Your task to perform on an android device: turn on showing notifications on the lock screen Image 0: 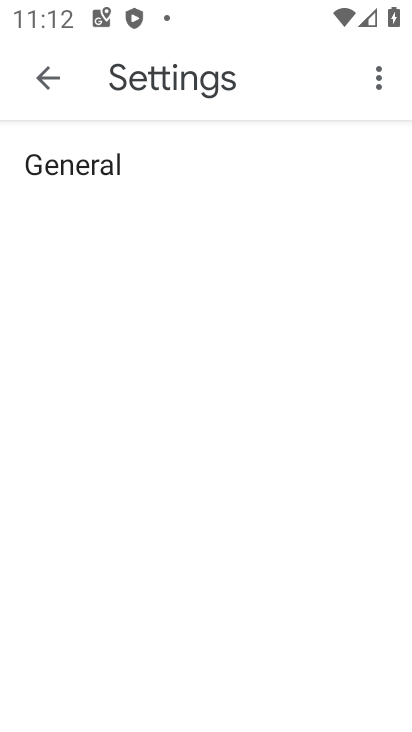
Step 0: press home button
Your task to perform on an android device: turn on showing notifications on the lock screen Image 1: 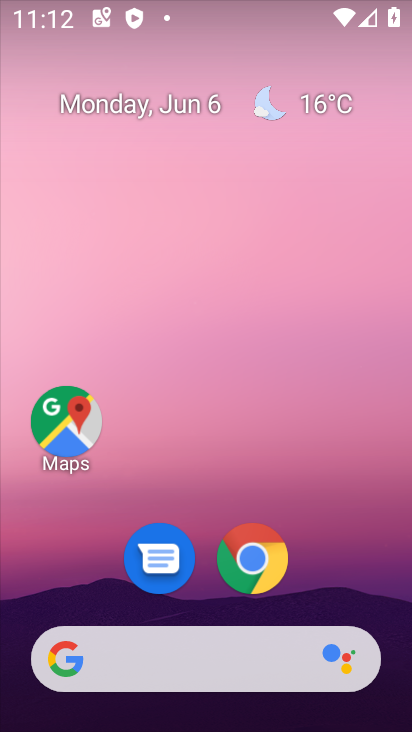
Step 1: drag from (347, 499) to (311, 25)
Your task to perform on an android device: turn on showing notifications on the lock screen Image 2: 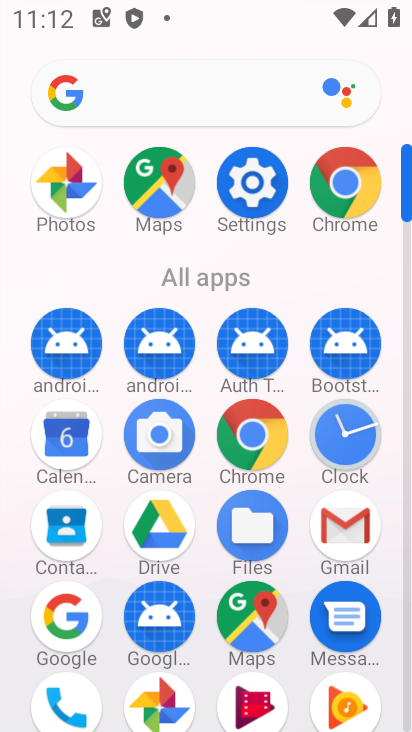
Step 2: click (258, 184)
Your task to perform on an android device: turn on showing notifications on the lock screen Image 3: 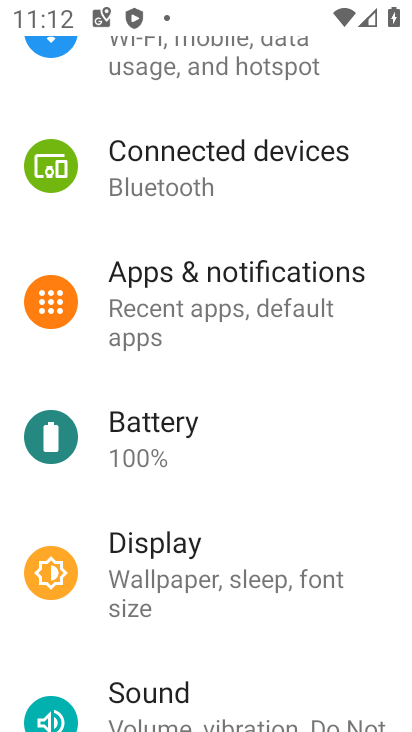
Step 3: click (113, 282)
Your task to perform on an android device: turn on showing notifications on the lock screen Image 4: 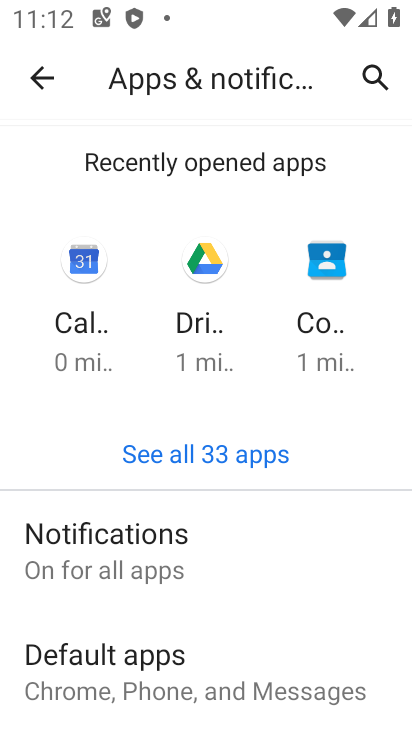
Step 4: click (260, 536)
Your task to perform on an android device: turn on showing notifications on the lock screen Image 5: 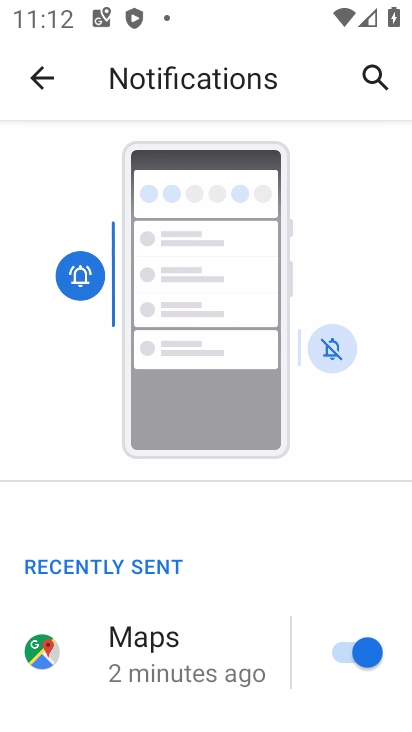
Step 5: drag from (221, 621) to (273, 128)
Your task to perform on an android device: turn on showing notifications on the lock screen Image 6: 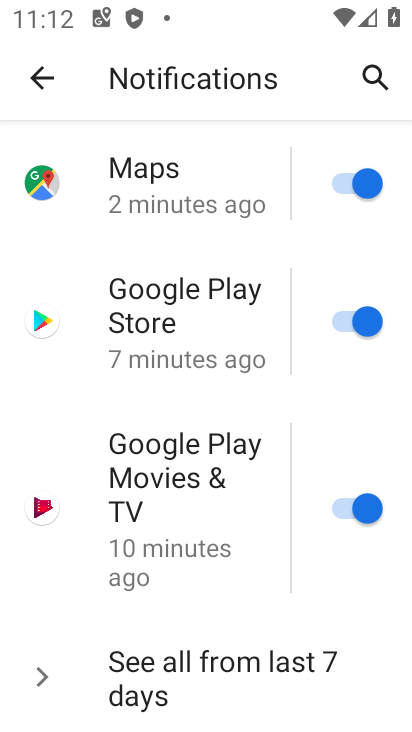
Step 6: drag from (147, 661) to (210, 232)
Your task to perform on an android device: turn on showing notifications on the lock screen Image 7: 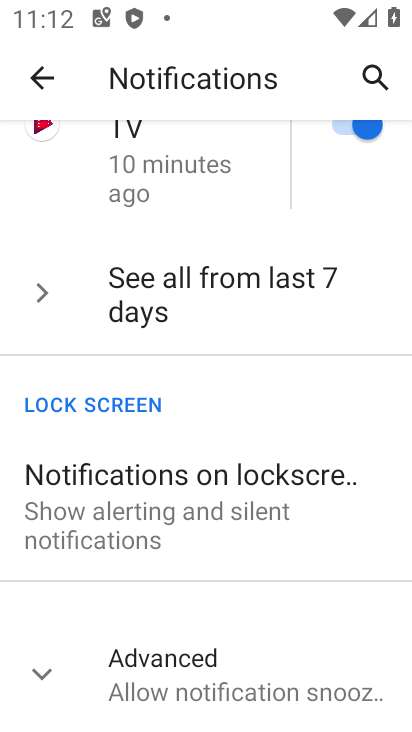
Step 7: click (181, 531)
Your task to perform on an android device: turn on showing notifications on the lock screen Image 8: 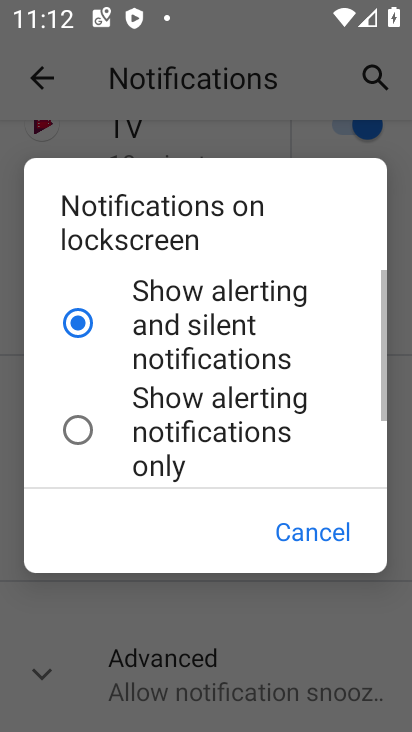
Step 8: click (236, 305)
Your task to perform on an android device: turn on showing notifications on the lock screen Image 9: 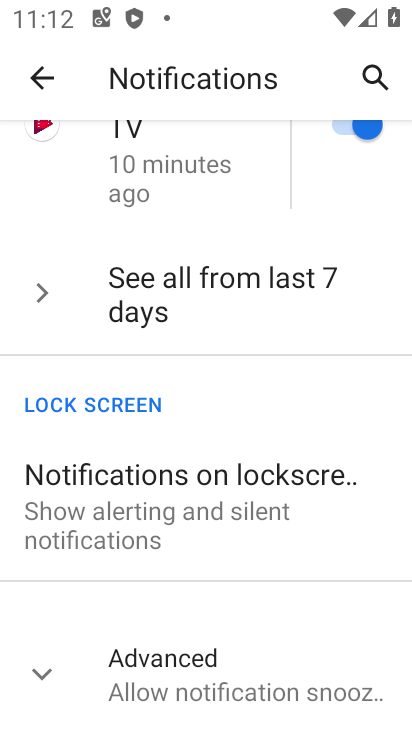
Step 9: task complete